Your task to perform on an android device: Open calendar and show me the third week of next month Image 0: 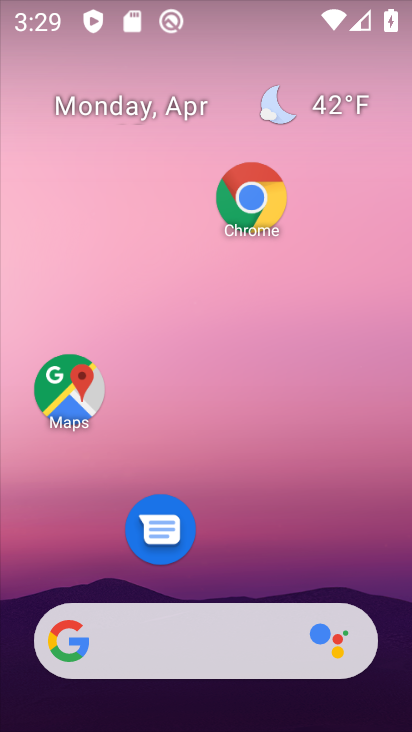
Step 0: drag from (266, 562) to (187, 181)
Your task to perform on an android device: Open calendar and show me the third week of next month Image 1: 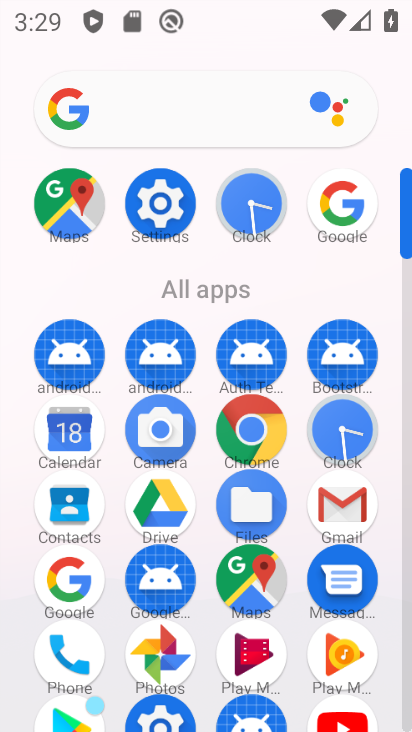
Step 1: click (90, 435)
Your task to perform on an android device: Open calendar and show me the third week of next month Image 2: 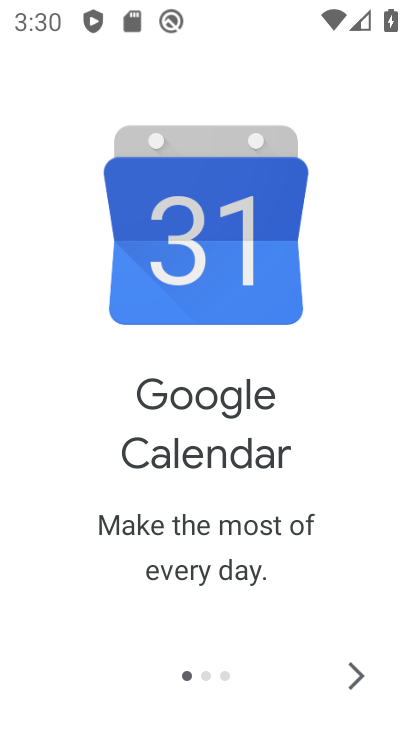
Step 2: click (352, 685)
Your task to perform on an android device: Open calendar and show me the third week of next month Image 3: 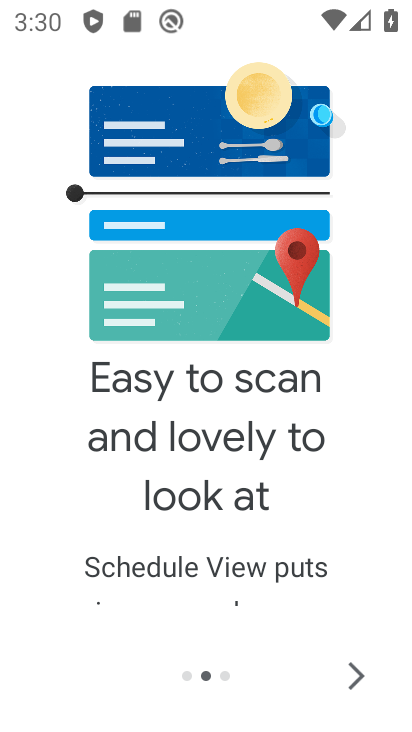
Step 3: click (352, 685)
Your task to perform on an android device: Open calendar and show me the third week of next month Image 4: 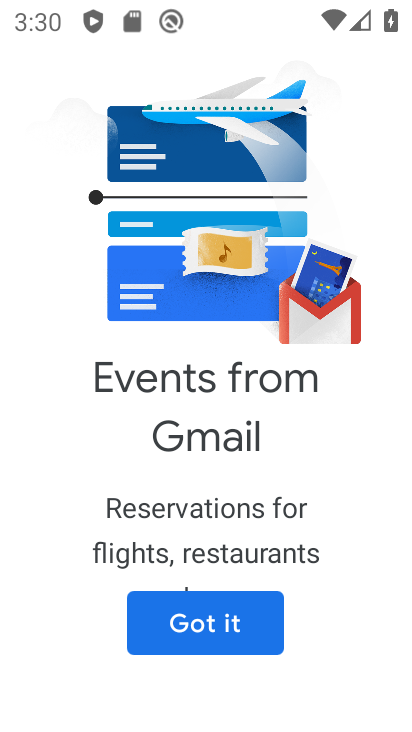
Step 4: click (256, 629)
Your task to perform on an android device: Open calendar and show me the third week of next month Image 5: 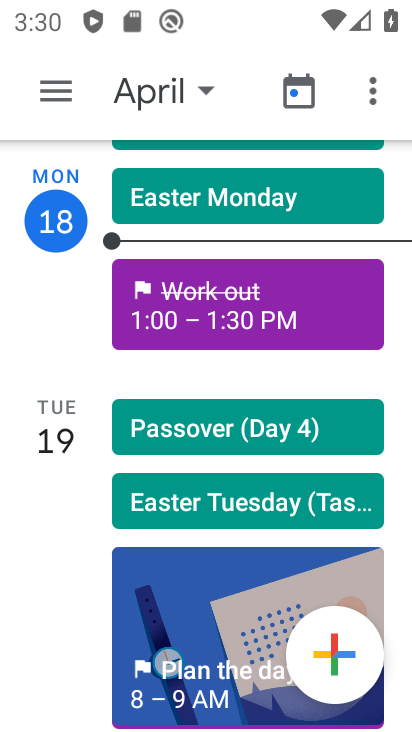
Step 5: click (193, 81)
Your task to perform on an android device: Open calendar and show me the third week of next month Image 6: 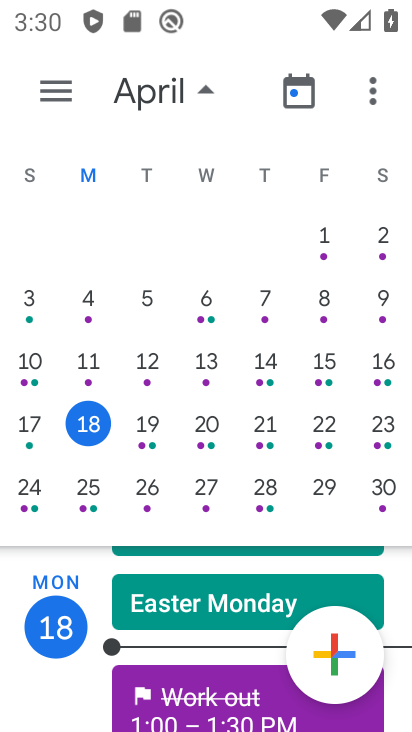
Step 6: drag from (206, 296) to (69, 256)
Your task to perform on an android device: Open calendar and show me the third week of next month Image 7: 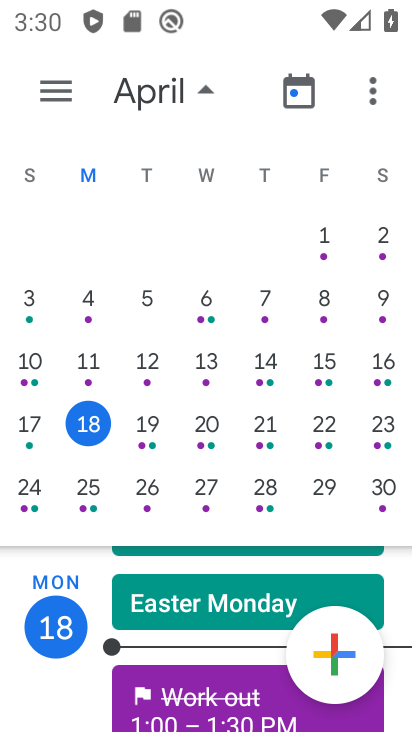
Step 7: drag from (299, 335) to (0, 296)
Your task to perform on an android device: Open calendar and show me the third week of next month Image 8: 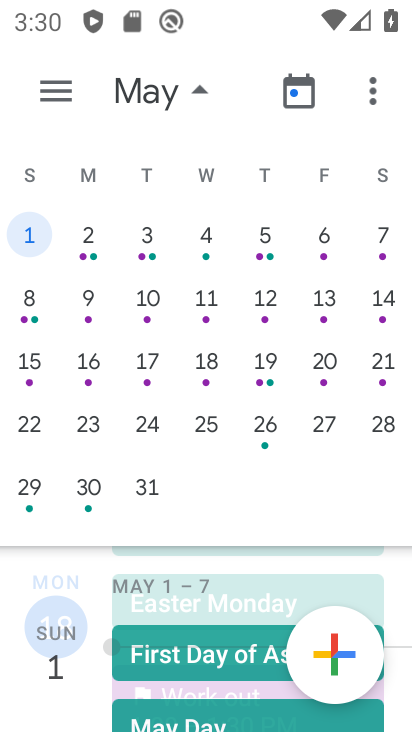
Step 8: drag from (385, 335) to (203, 320)
Your task to perform on an android device: Open calendar and show me the third week of next month Image 9: 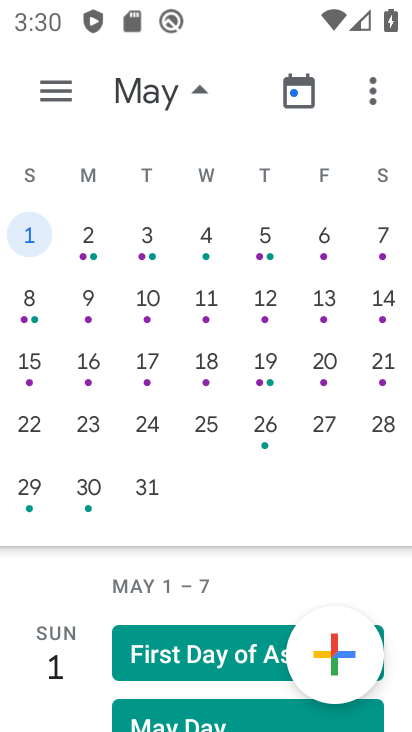
Step 9: click (91, 369)
Your task to perform on an android device: Open calendar and show me the third week of next month Image 10: 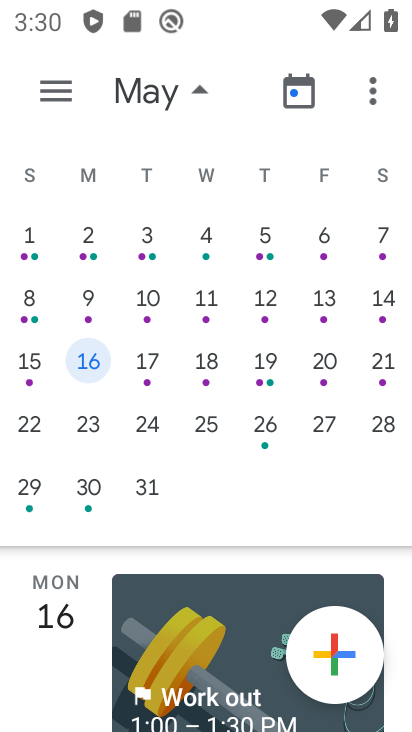
Step 10: task complete